Your task to perform on an android device: Open eBay Image 0: 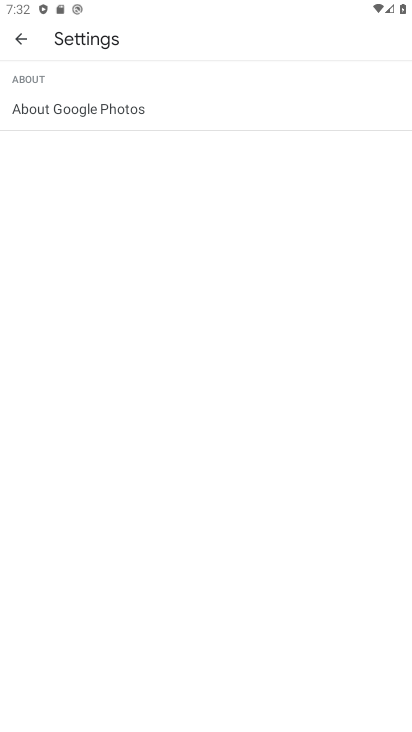
Step 0: press home button
Your task to perform on an android device: Open eBay Image 1: 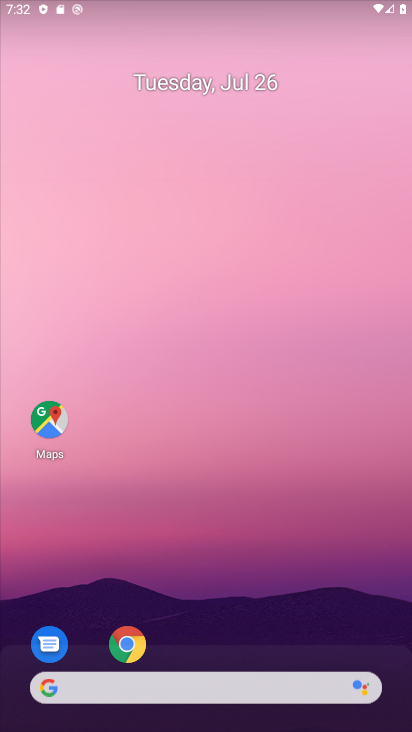
Step 1: drag from (391, 691) to (336, 118)
Your task to perform on an android device: Open eBay Image 2: 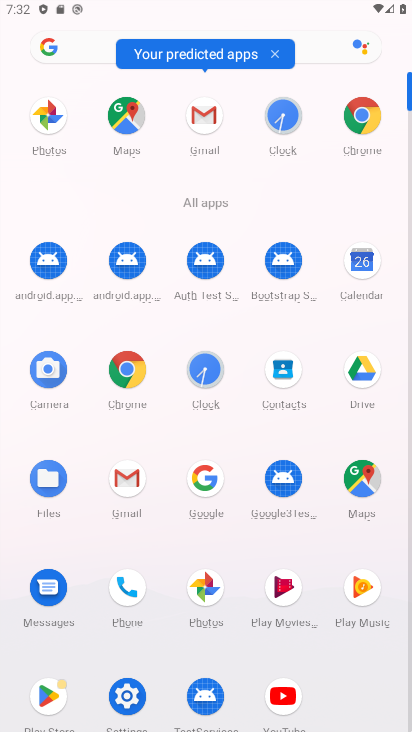
Step 2: click (137, 372)
Your task to perform on an android device: Open eBay Image 3: 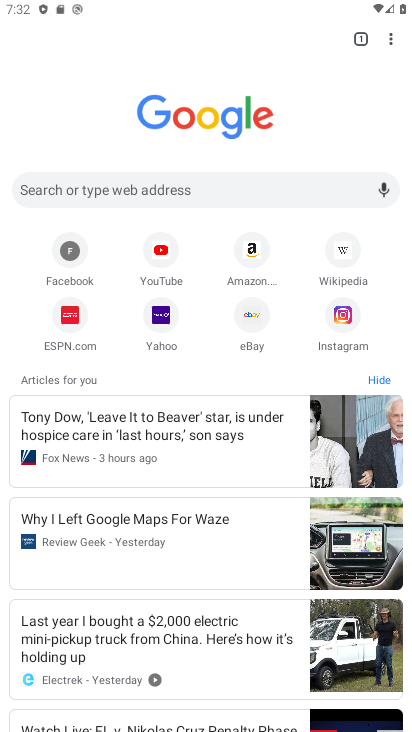
Step 3: click (147, 180)
Your task to perform on an android device: Open eBay Image 4: 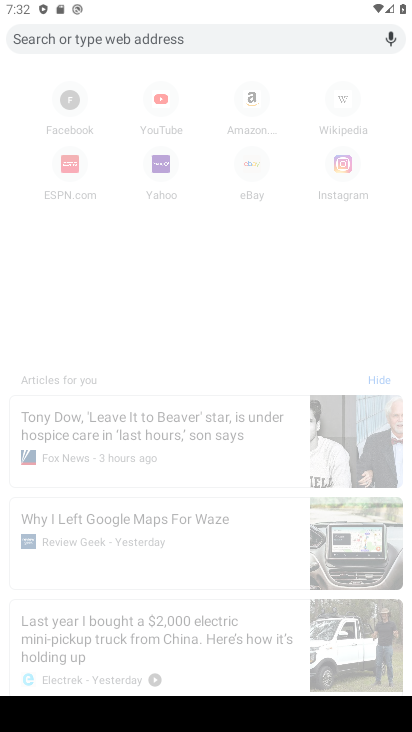
Step 4: type "eBay"
Your task to perform on an android device: Open eBay Image 5: 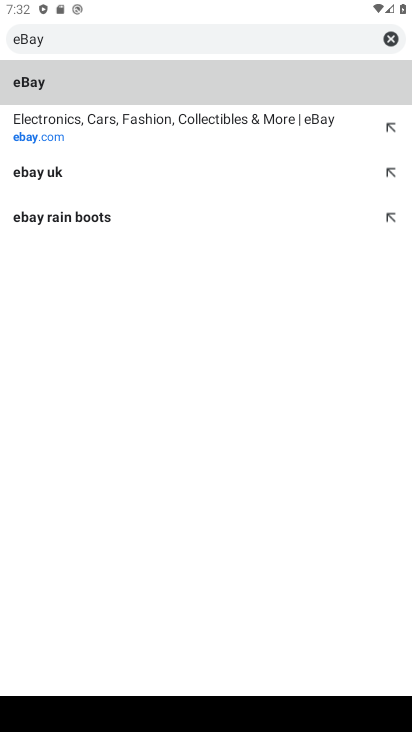
Step 5: click (31, 72)
Your task to perform on an android device: Open eBay Image 6: 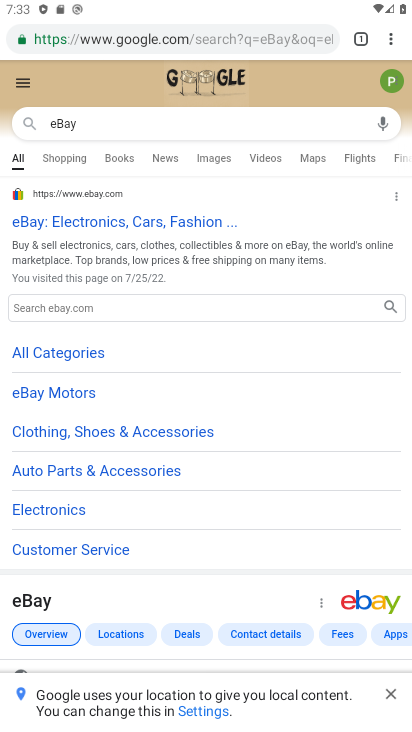
Step 6: task complete